Your task to perform on an android device: turn off wifi Image 0: 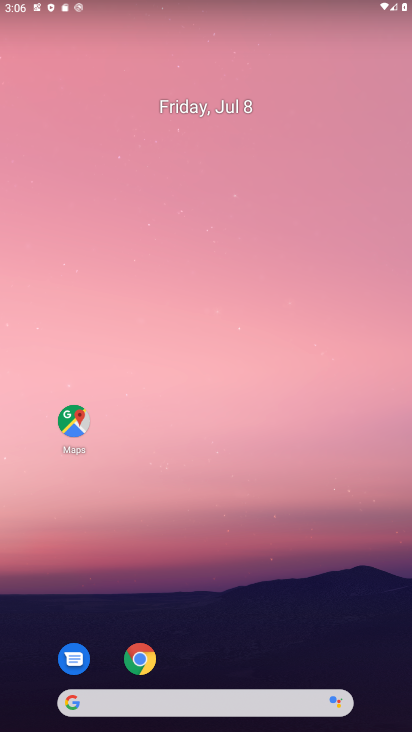
Step 0: drag from (206, 669) to (208, 251)
Your task to perform on an android device: turn off wifi Image 1: 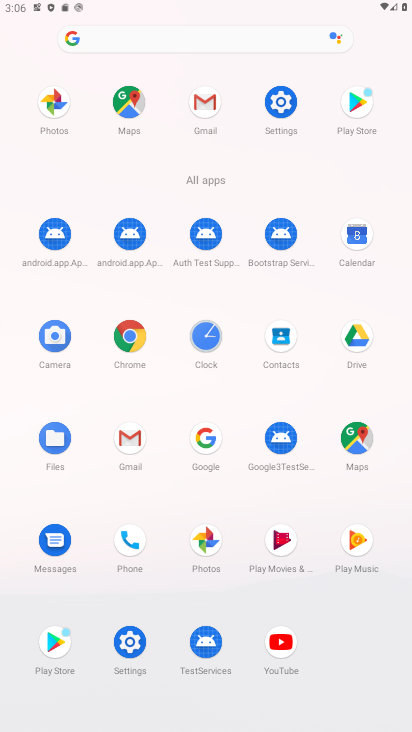
Step 1: click (276, 96)
Your task to perform on an android device: turn off wifi Image 2: 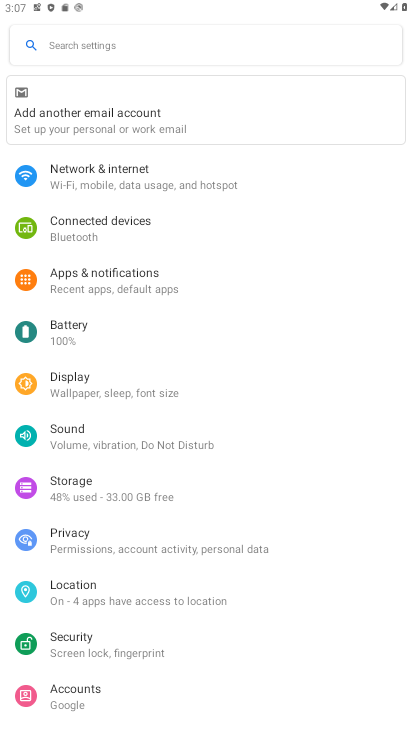
Step 2: click (144, 183)
Your task to perform on an android device: turn off wifi Image 3: 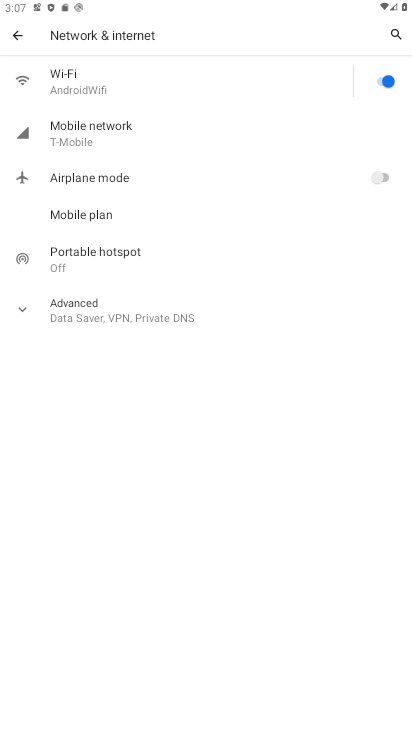
Step 3: click (373, 84)
Your task to perform on an android device: turn off wifi Image 4: 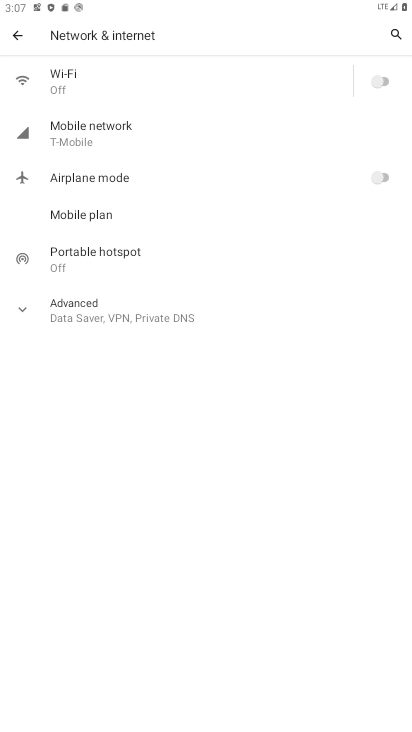
Step 4: task complete